Your task to perform on an android device: delete the emails in spam in the gmail app Image 0: 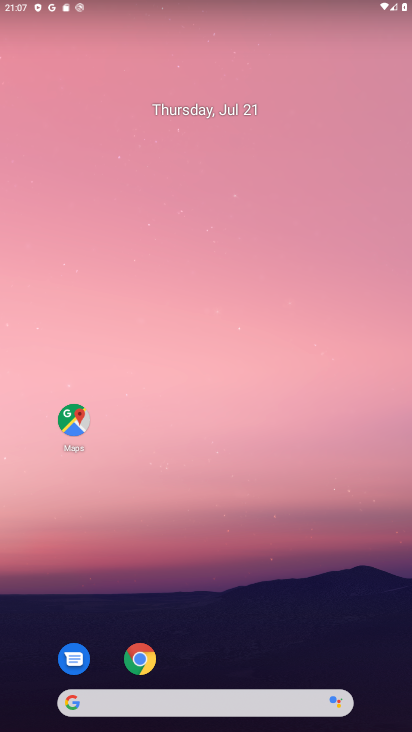
Step 0: press home button
Your task to perform on an android device: delete the emails in spam in the gmail app Image 1: 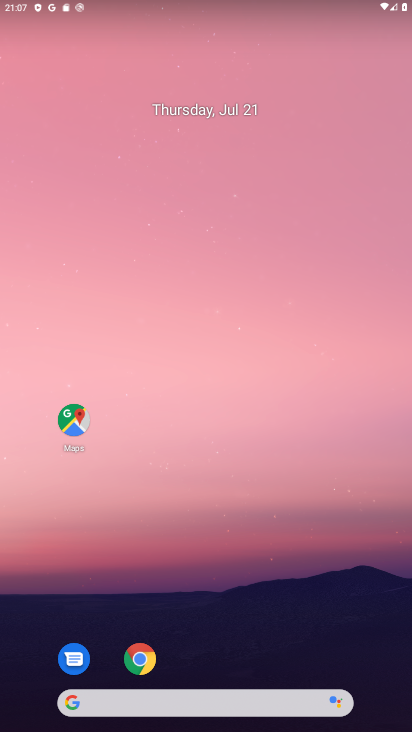
Step 1: drag from (297, 616) to (294, 184)
Your task to perform on an android device: delete the emails in spam in the gmail app Image 2: 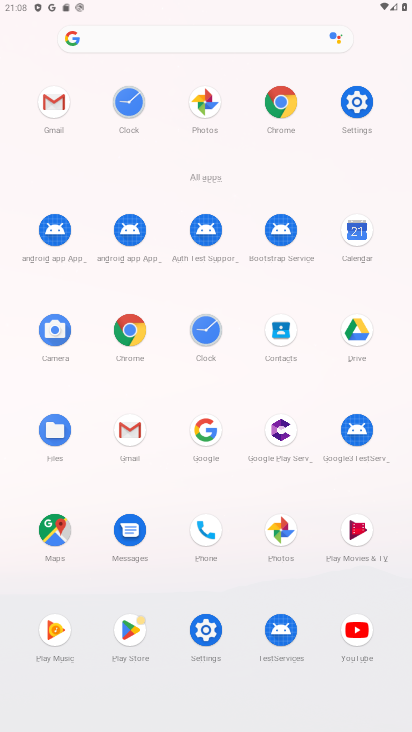
Step 2: click (136, 436)
Your task to perform on an android device: delete the emails in spam in the gmail app Image 3: 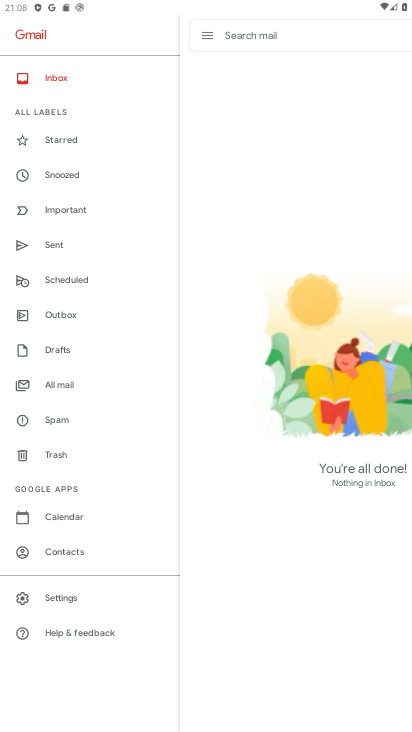
Step 3: click (269, 303)
Your task to perform on an android device: delete the emails in spam in the gmail app Image 4: 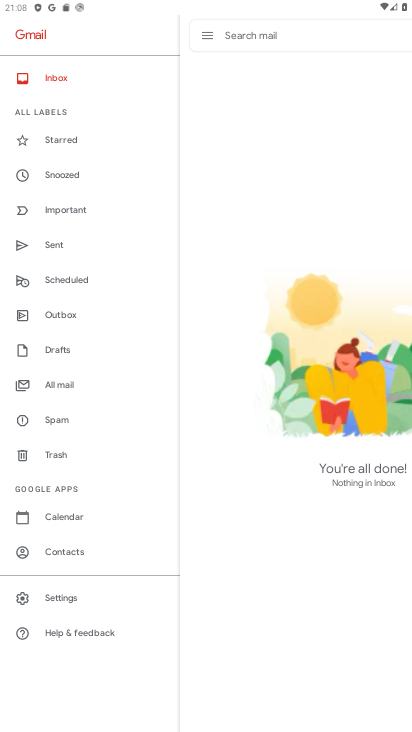
Step 4: click (207, 33)
Your task to perform on an android device: delete the emails in spam in the gmail app Image 5: 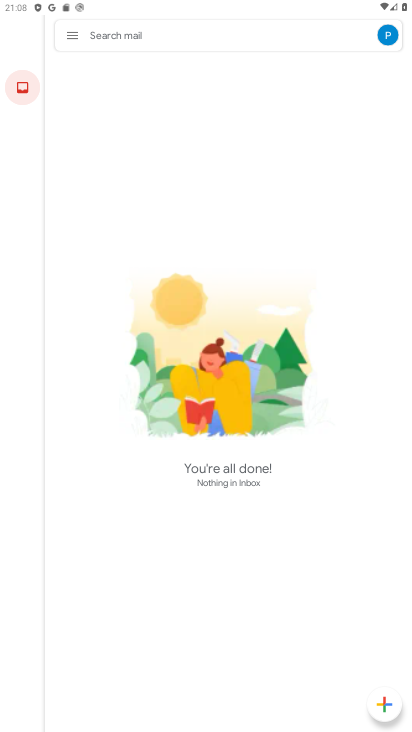
Step 5: task complete